Your task to perform on an android device: open the mobile data screen to see how much data has been used Image 0: 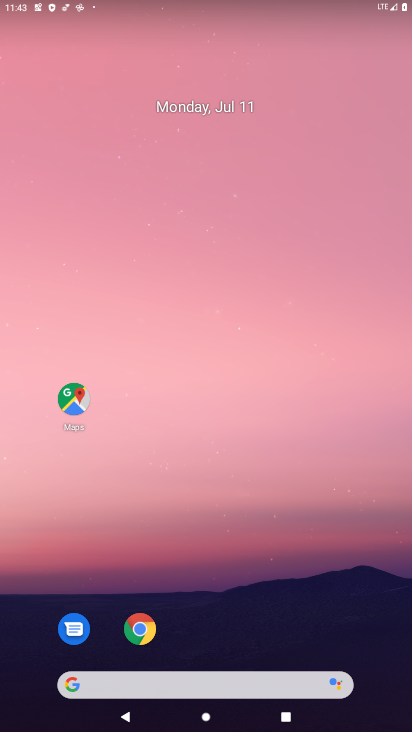
Step 0: drag from (236, 625) to (206, 90)
Your task to perform on an android device: open the mobile data screen to see how much data has been used Image 1: 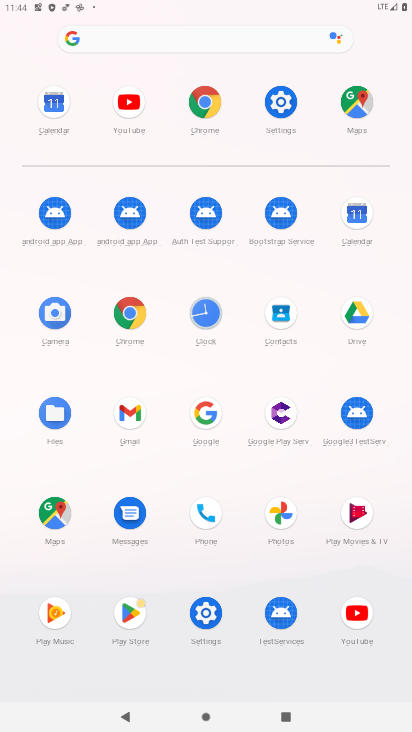
Step 1: click (294, 118)
Your task to perform on an android device: open the mobile data screen to see how much data has been used Image 2: 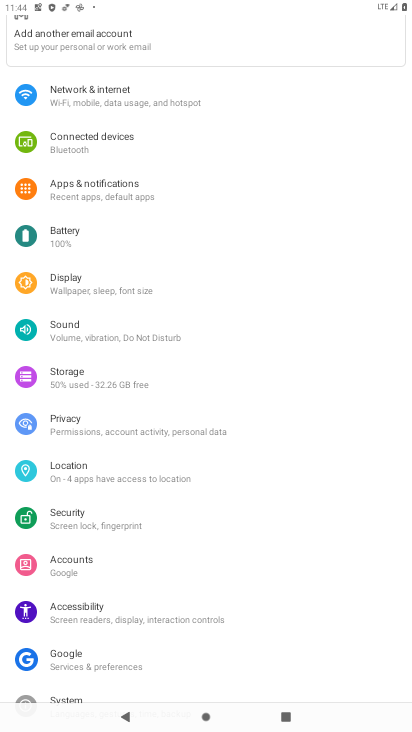
Step 2: click (156, 113)
Your task to perform on an android device: open the mobile data screen to see how much data has been used Image 3: 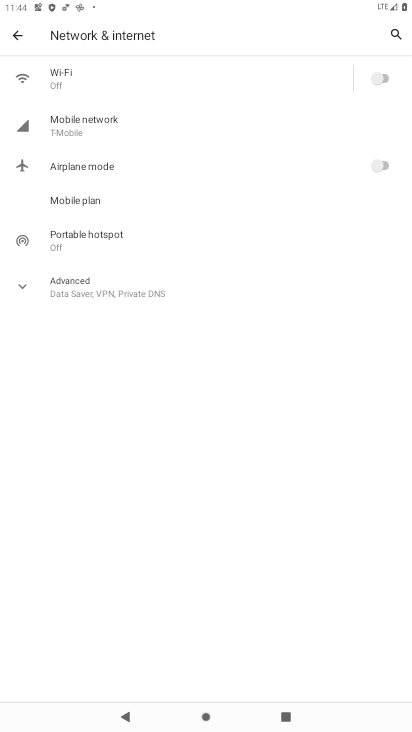
Step 3: click (115, 113)
Your task to perform on an android device: open the mobile data screen to see how much data has been used Image 4: 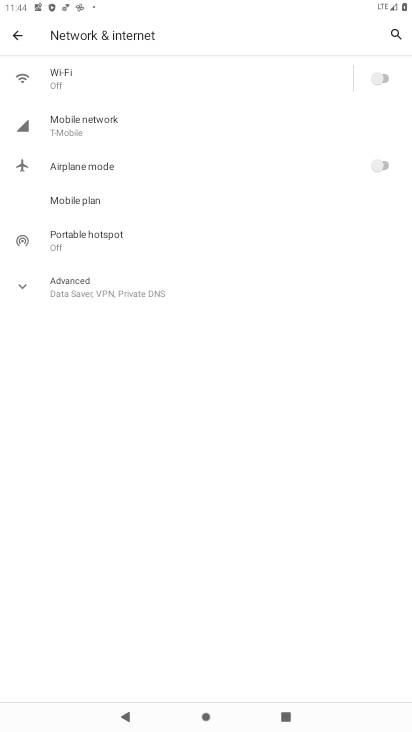
Step 4: task complete